Your task to perform on an android device: Is it going to rain this weekend? Image 0: 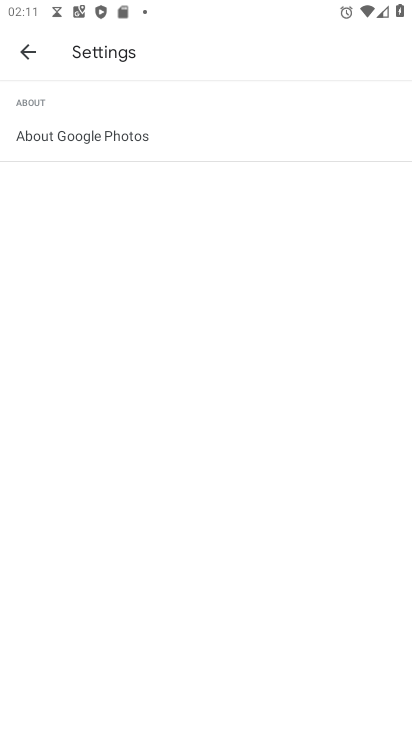
Step 0: press home button
Your task to perform on an android device: Is it going to rain this weekend? Image 1: 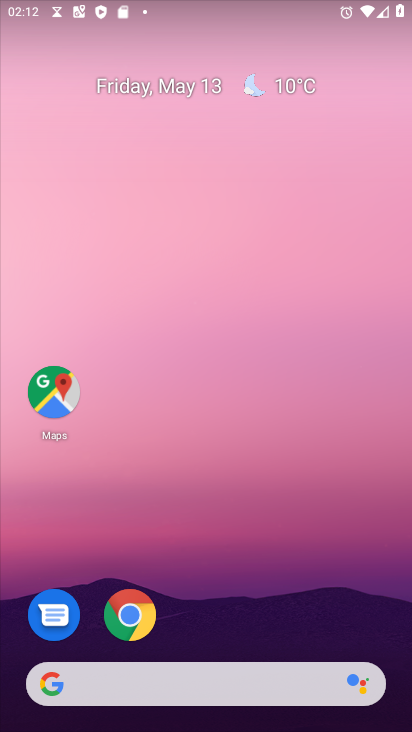
Step 1: click (116, 615)
Your task to perform on an android device: Is it going to rain this weekend? Image 2: 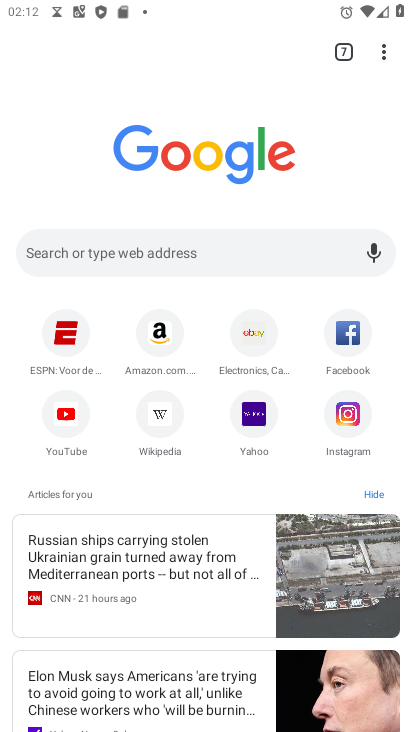
Step 2: click (342, 55)
Your task to perform on an android device: Is it going to rain this weekend? Image 3: 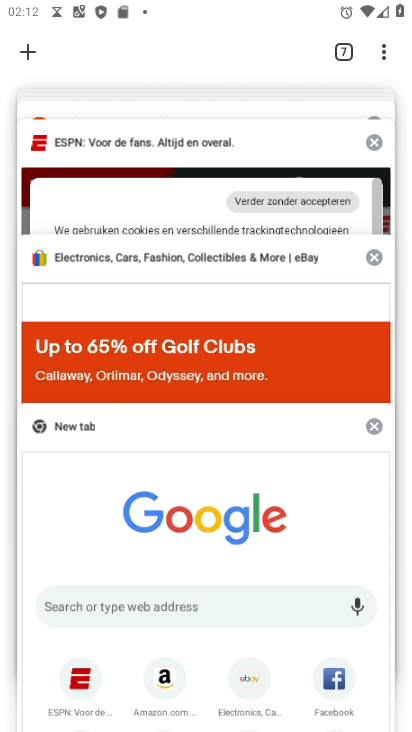
Step 3: drag from (170, 137) to (153, 546)
Your task to perform on an android device: Is it going to rain this weekend? Image 4: 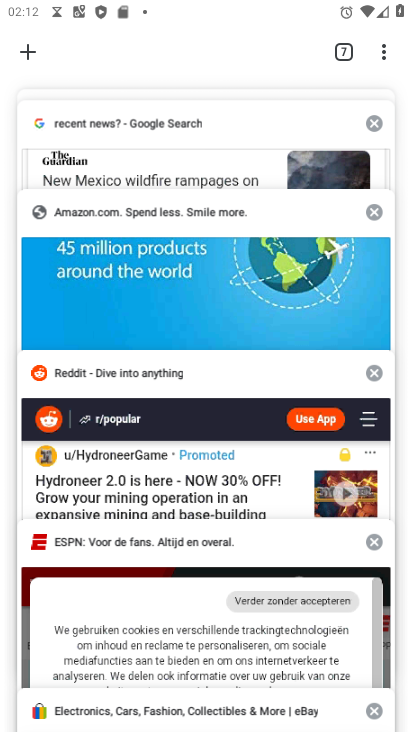
Step 4: drag from (146, 166) to (109, 525)
Your task to perform on an android device: Is it going to rain this weekend? Image 5: 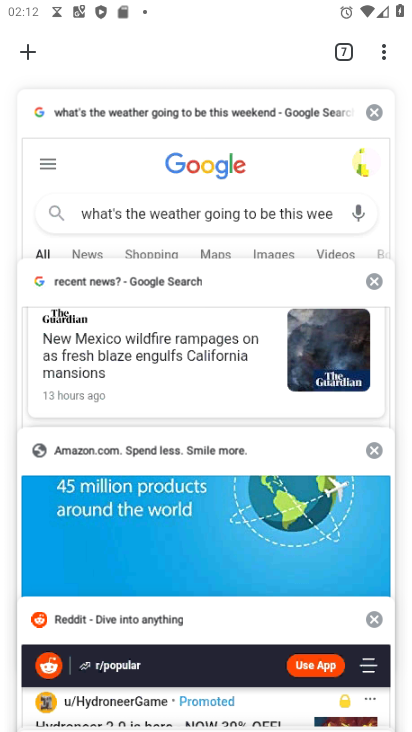
Step 5: drag from (190, 646) to (195, 36)
Your task to perform on an android device: Is it going to rain this weekend? Image 6: 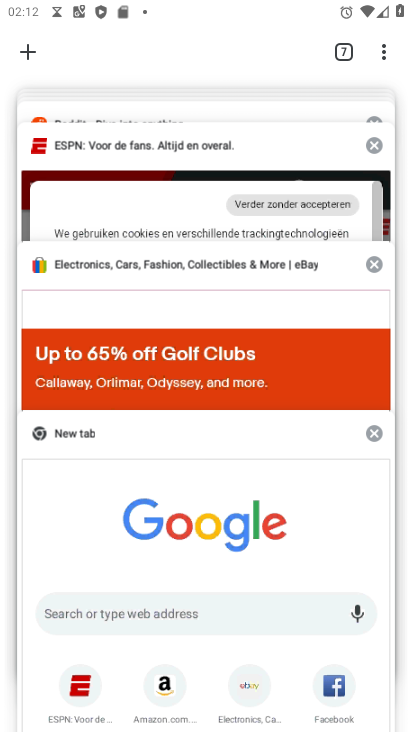
Step 6: click (176, 596)
Your task to perform on an android device: Is it going to rain this weekend? Image 7: 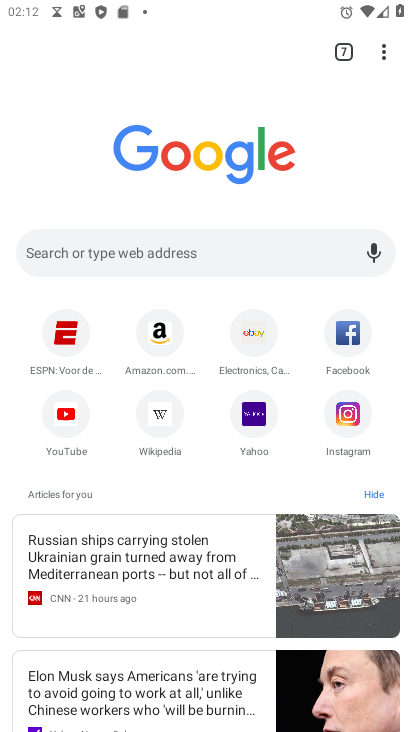
Step 7: click (116, 249)
Your task to perform on an android device: Is it going to rain this weekend? Image 8: 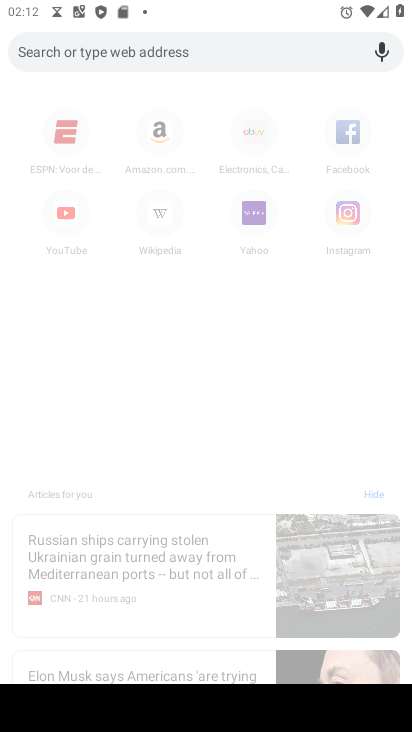
Step 8: type "is it going to rain this weekend?"
Your task to perform on an android device: Is it going to rain this weekend? Image 9: 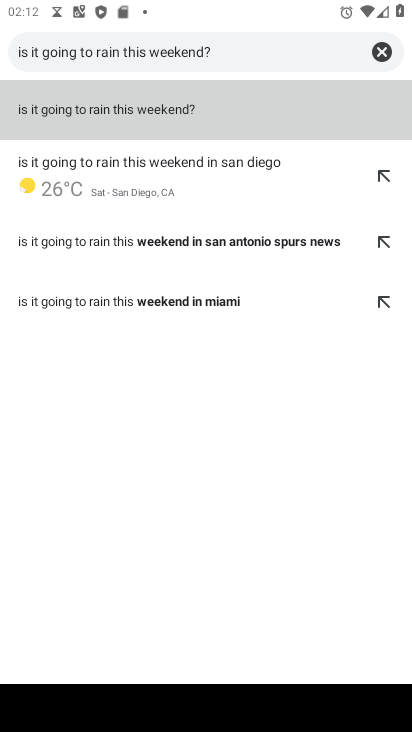
Step 9: click (147, 119)
Your task to perform on an android device: Is it going to rain this weekend? Image 10: 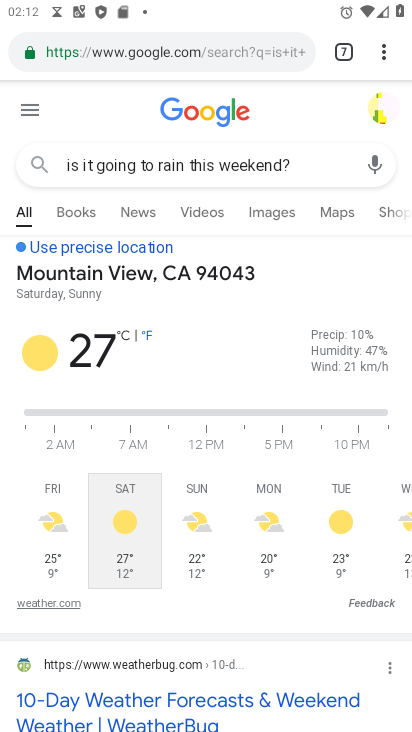
Step 10: click (198, 527)
Your task to perform on an android device: Is it going to rain this weekend? Image 11: 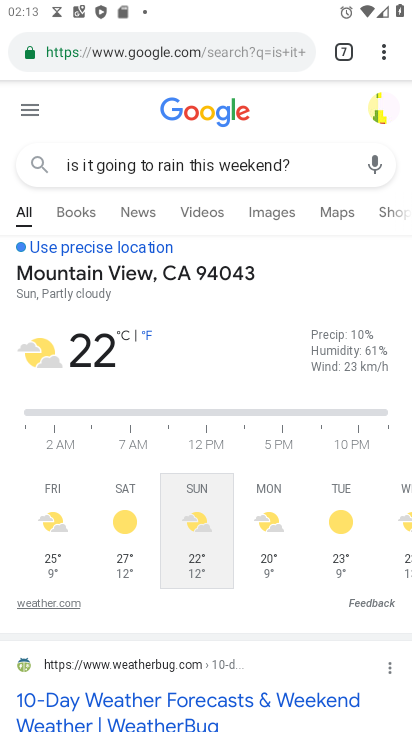
Step 11: task complete